Your task to perform on an android device: Go to privacy settings Image 0: 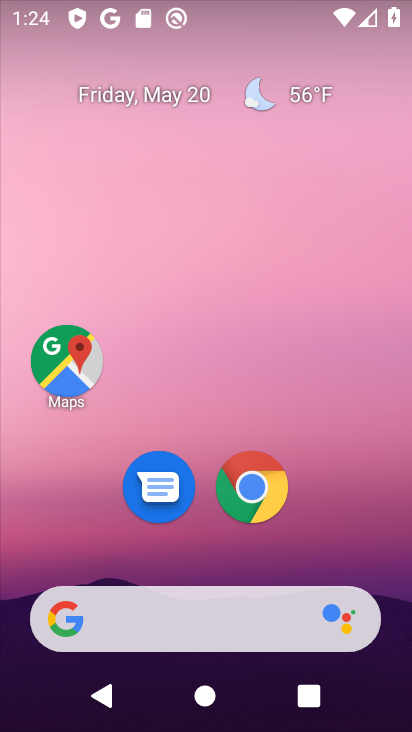
Step 0: press home button
Your task to perform on an android device: Go to privacy settings Image 1: 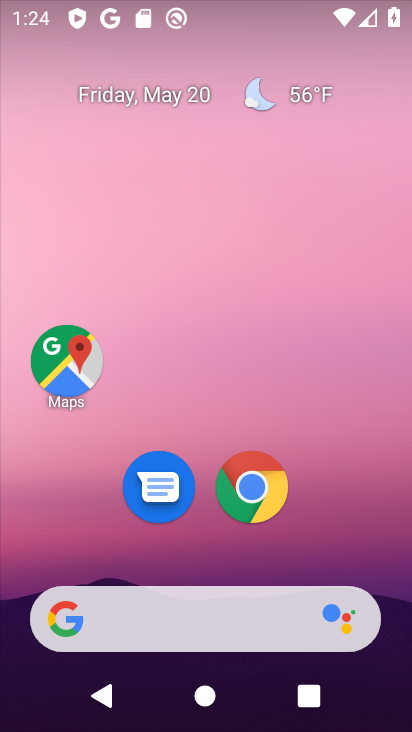
Step 1: drag from (208, 563) to (204, 98)
Your task to perform on an android device: Go to privacy settings Image 2: 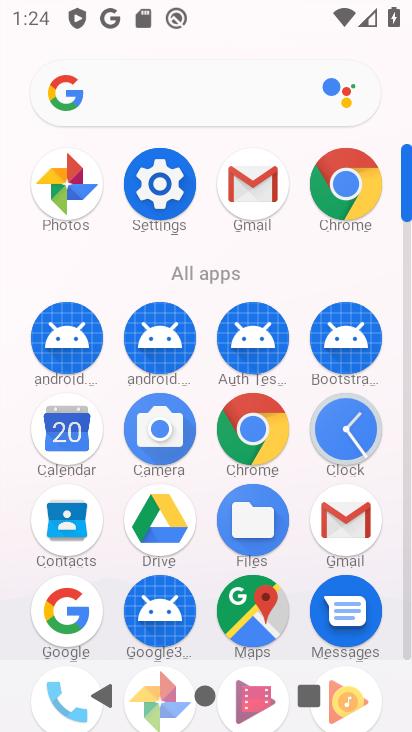
Step 2: click (156, 176)
Your task to perform on an android device: Go to privacy settings Image 3: 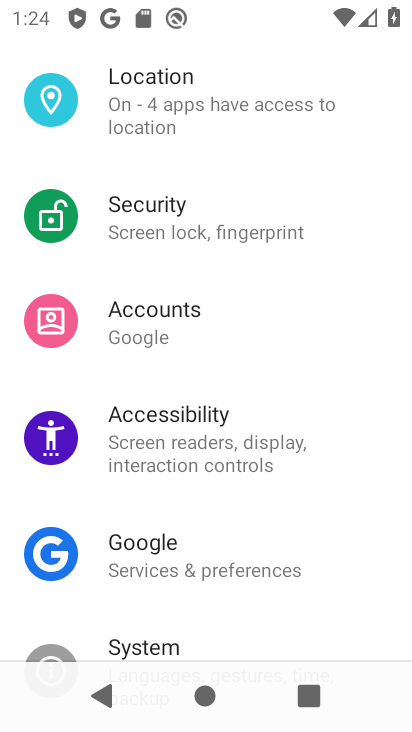
Step 3: drag from (187, 181) to (248, 730)
Your task to perform on an android device: Go to privacy settings Image 4: 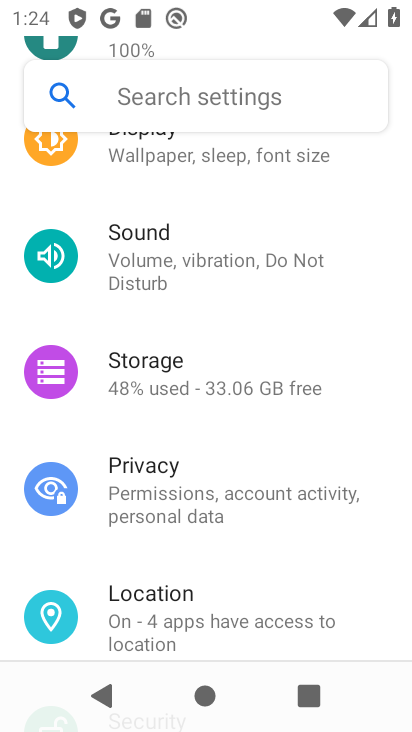
Step 4: click (207, 469)
Your task to perform on an android device: Go to privacy settings Image 5: 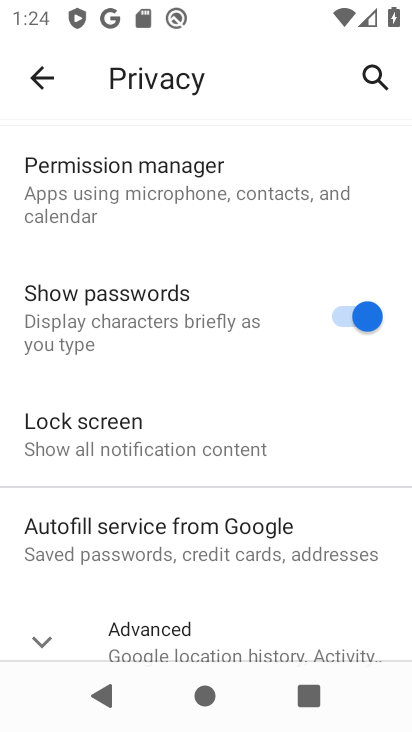
Step 5: click (40, 626)
Your task to perform on an android device: Go to privacy settings Image 6: 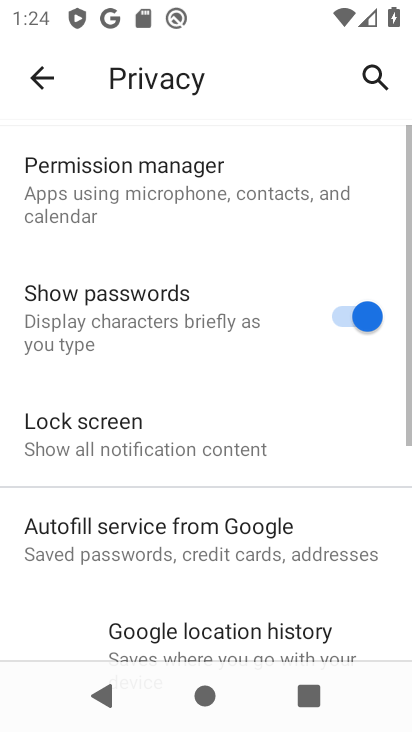
Step 6: task complete